Your task to perform on an android device: Show me the alarms in the clock app Image 0: 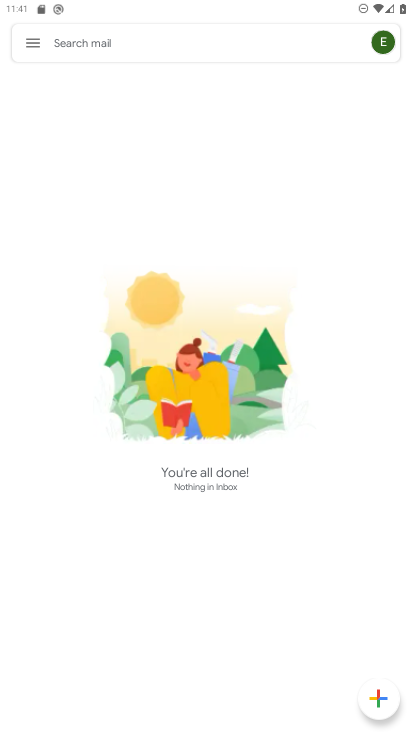
Step 0: press home button
Your task to perform on an android device: Show me the alarms in the clock app Image 1: 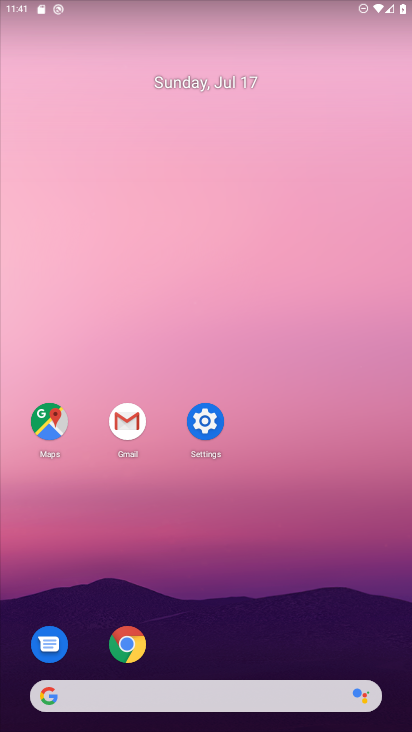
Step 1: drag from (407, 613) to (342, 34)
Your task to perform on an android device: Show me the alarms in the clock app Image 2: 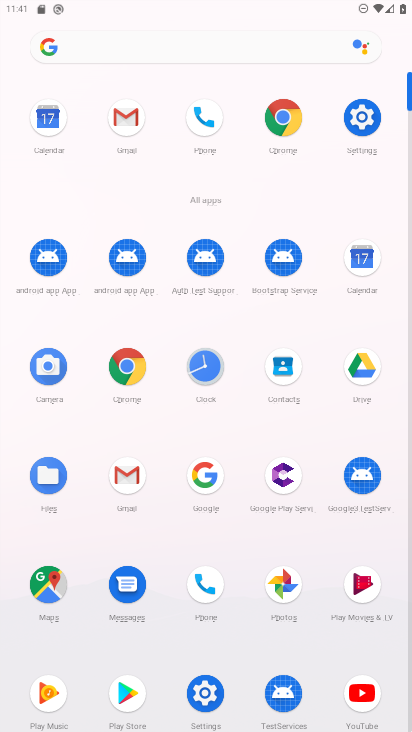
Step 2: click (191, 373)
Your task to perform on an android device: Show me the alarms in the clock app Image 3: 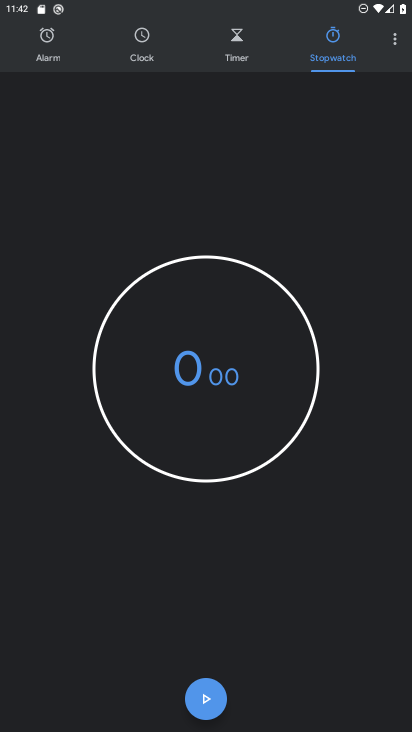
Step 3: click (54, 63)
Your task to perform on an android device: Show me the alarms in the clock app Image 4: 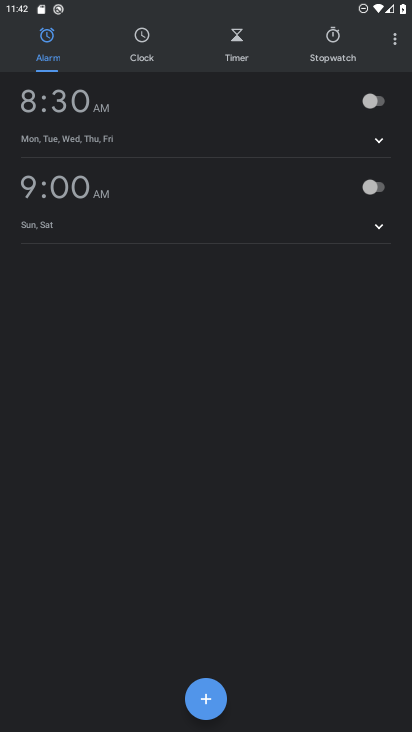
Step 4: task complete